Your task to perform on an android device: Go to internet settings Image 0: 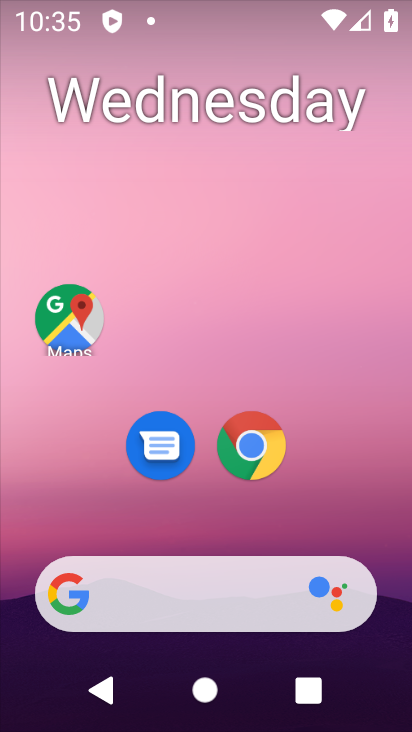
Step 0: drag from (333, 440) to (348, 61)
Your task to perform on an android device: Go to internet settings Image 1: 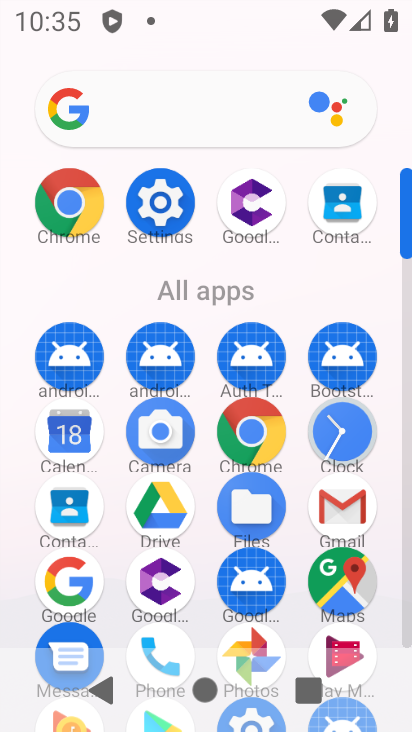
Step 1: click (181, 199)
Your task to perform on an android device: Go to internet settings Image 2: 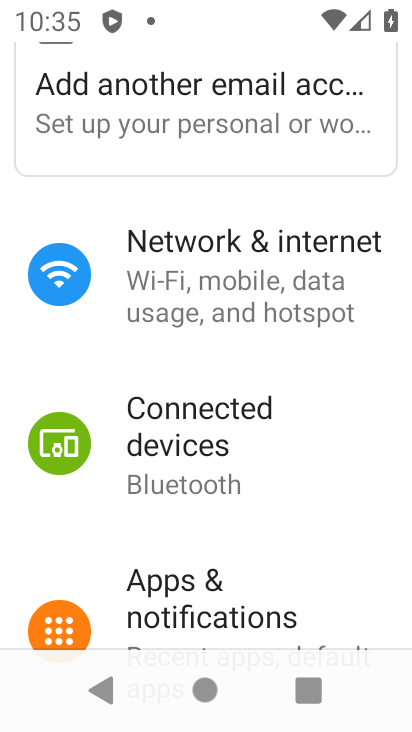
Step 2: click (315, 286)
Your task to perform on an android device: Go to internet settings Image 3: 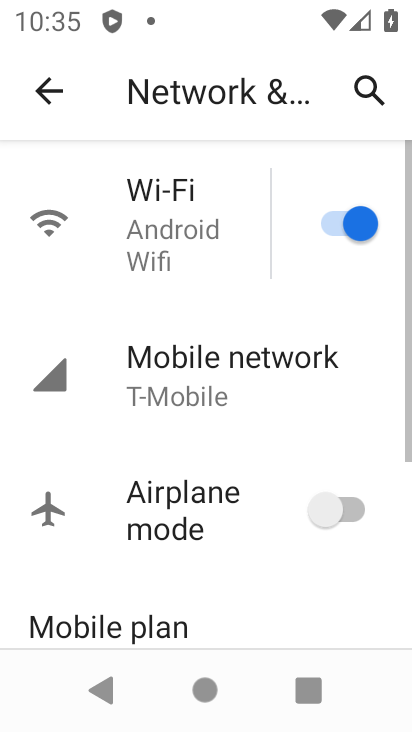
Step 3: task complete